Your task to perform on an android device: Go to Reddit.com Image 0: 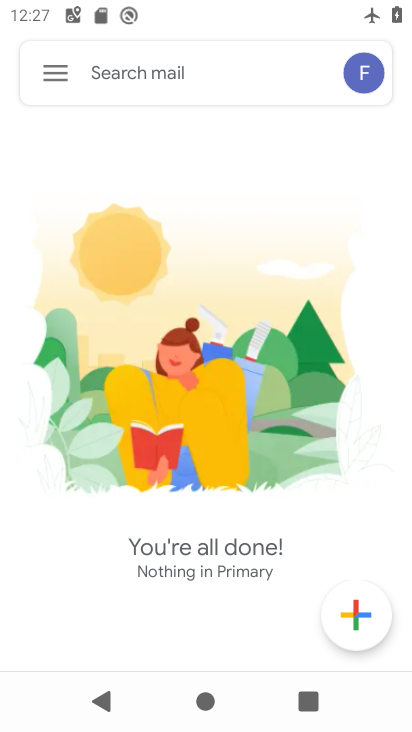
Step 0: press home button
Your task to perform on an android device: Go to Reddit.com Image 1: 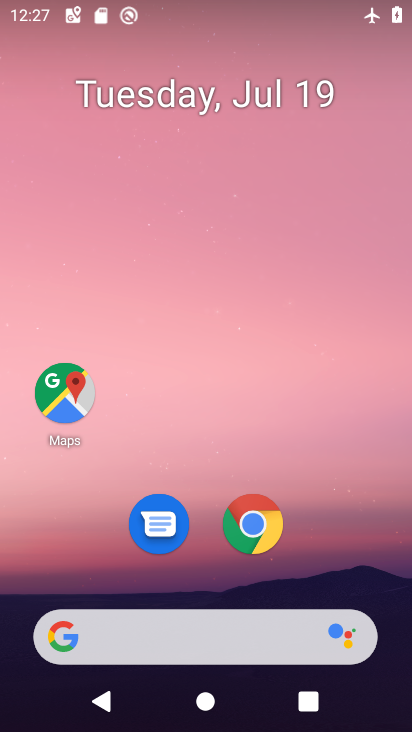
Step 1: click (264, 632)
Your task to perform on an android device: Go to Reddit.com Image 2: 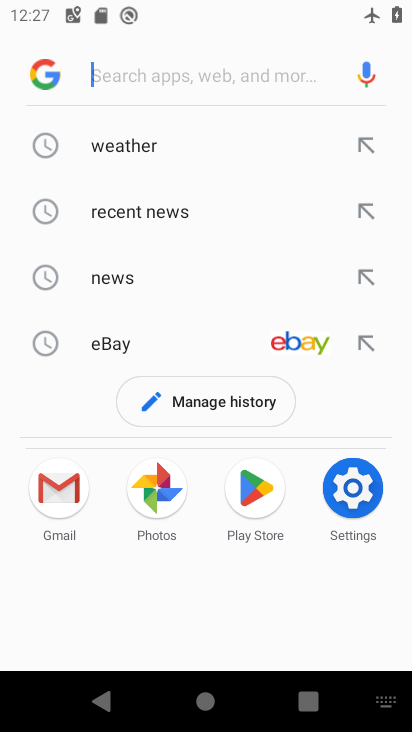
Step 2: type "reddit.com"
Your task to perform on an android device: Go to Reddit.com Image 3: 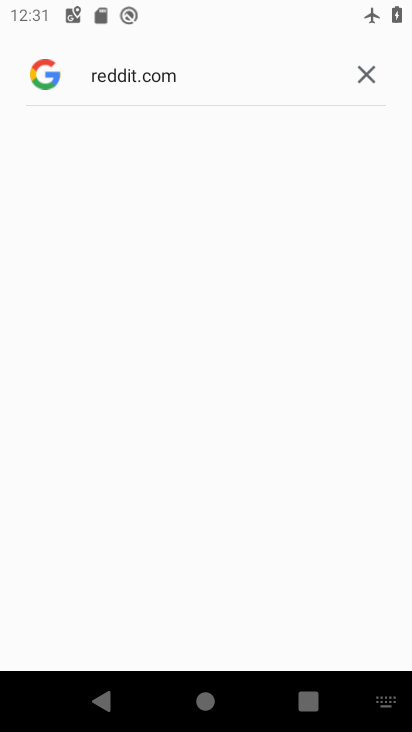
Step 3: task complete